Your task to perform on an android device: Go to Reddit.com Image 0: 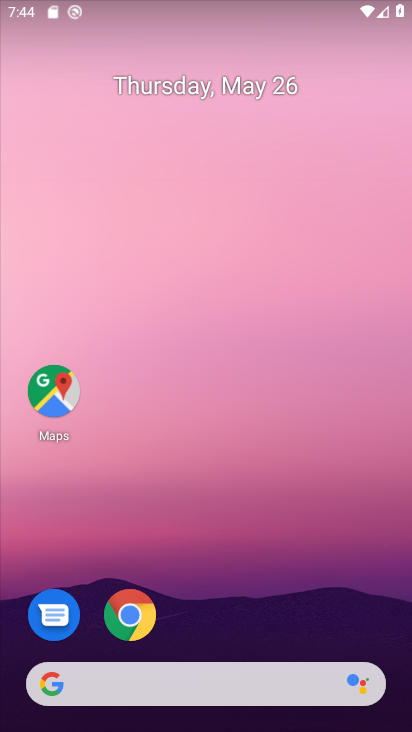
Step 0: drag from (271, 527) to (269, 237)
Your task to perform on an android device: Go to Reddit.com Image 1: 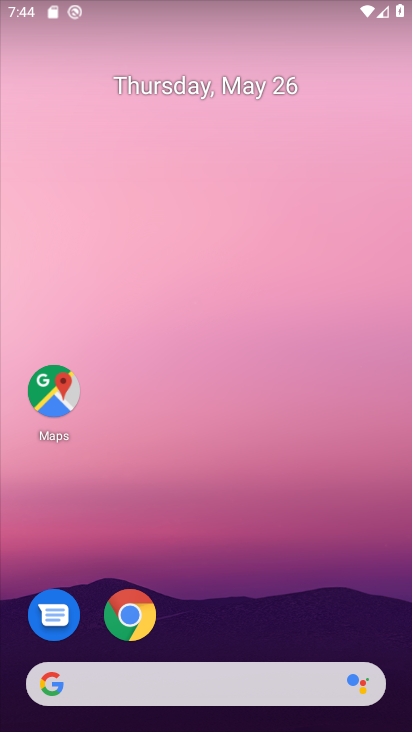
Step 1: click (128, 621)
Your task to perform on an android device: Go to Reddit.com Image 2: 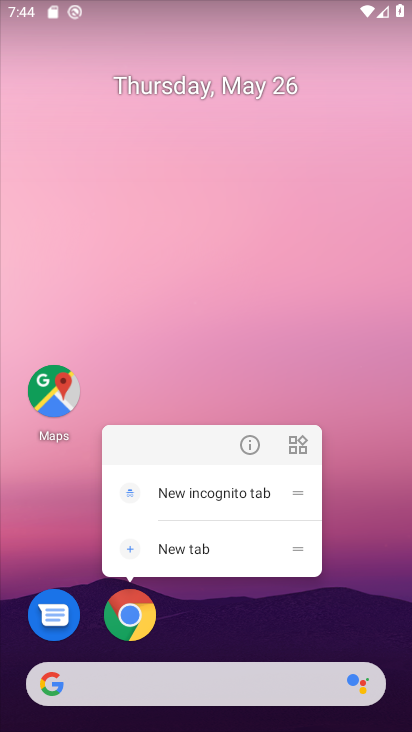
Step 2: click (116, 620)
Your task to perform on an android device: Go to Reddit.com Image 3: 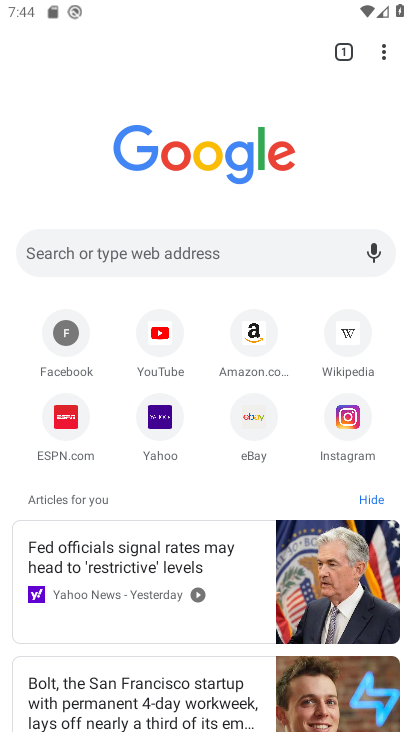
Step 3: click (200, 241)
Your task to perform on an android device: Go to Reddit.com Image 4: 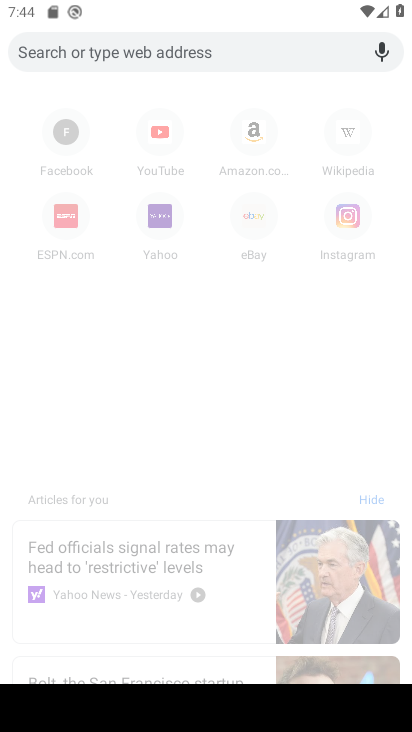
Step 4: type " Reddit.com"
Your task to perform on an android device: Go to Reddit.com Image 5: 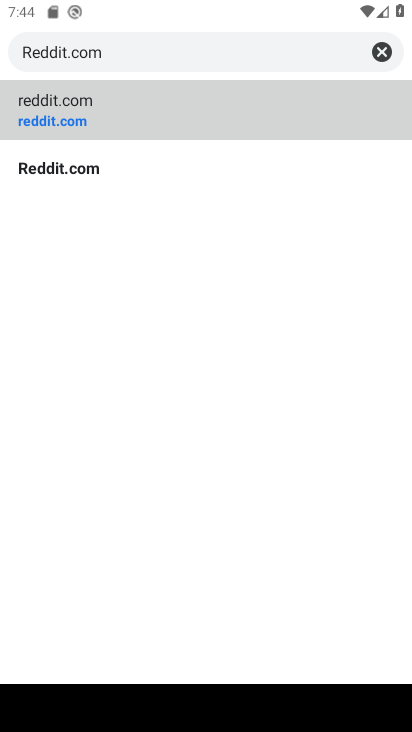
Step 5: click (207, 97)
Your task to perform on an android device: Go to Reddit.com Image 6: 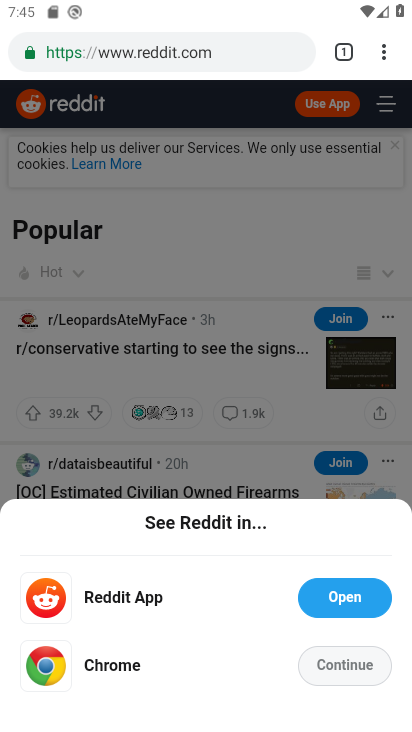
Step 6: task complete